Your task to perform on an android device: Go to accessibility settings Image 0: 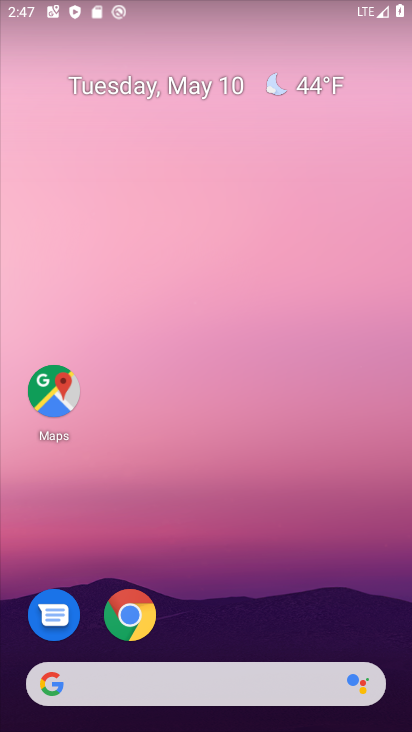
Step 0: drag from (347, 632) to (362, 174)
Your task to perform on an android device: Go to accessibility settings Image 1: 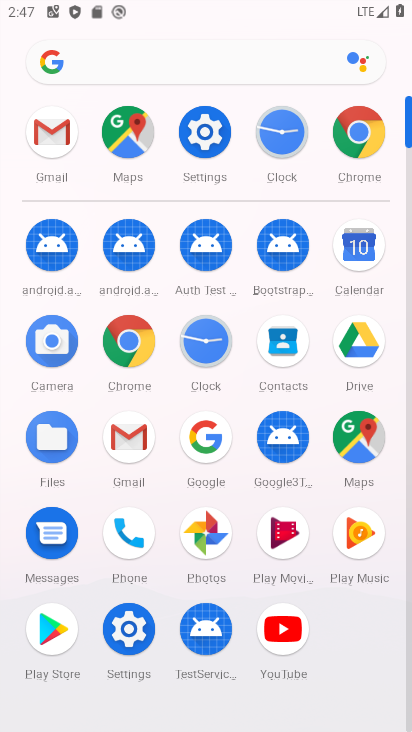
Step 1: click (199, 125)
Your task to perform on an android device: Go to accessibility settings Image 2: 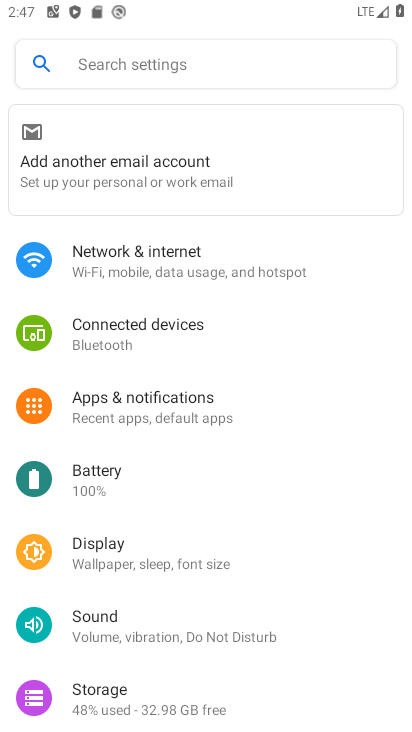
Step 2: drag from (269, 542) to (254, 47)
Your task to perform on an android device: Go to accessibility settings Image 3: 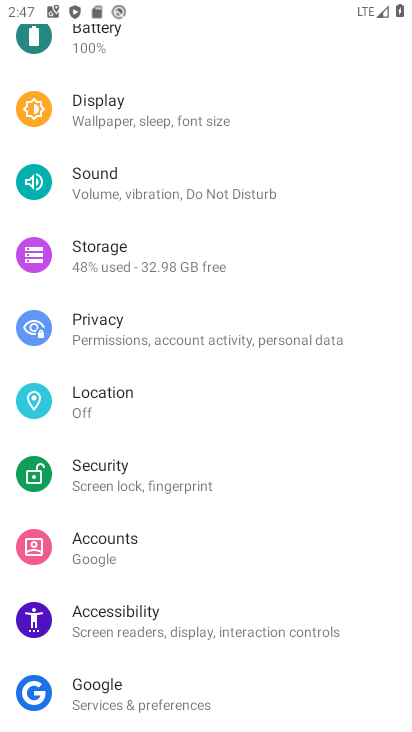
Step 3: click (155, 594)
Your task to perform on an android device: Go to accessibility settings Image 4: 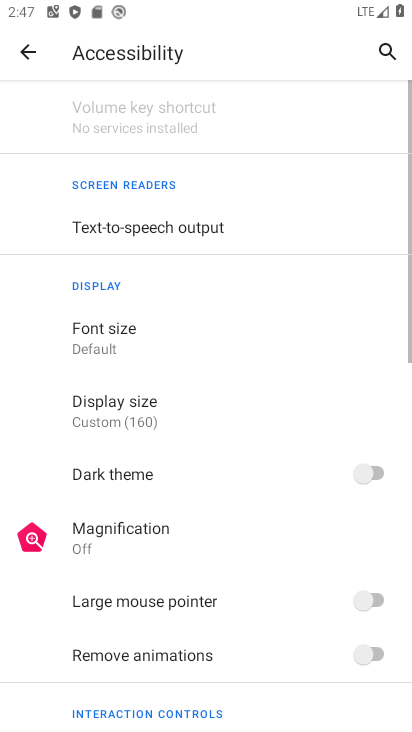
Step 4: task complete